Your task to perform on an android device: Open settings on Google Maps Image 0: 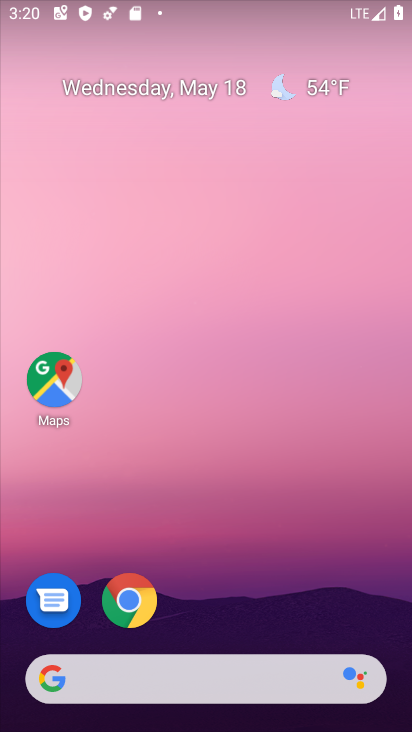
Step 0: press home button
Your task to perform on an android device: Open settings on Google Maps Image 1: 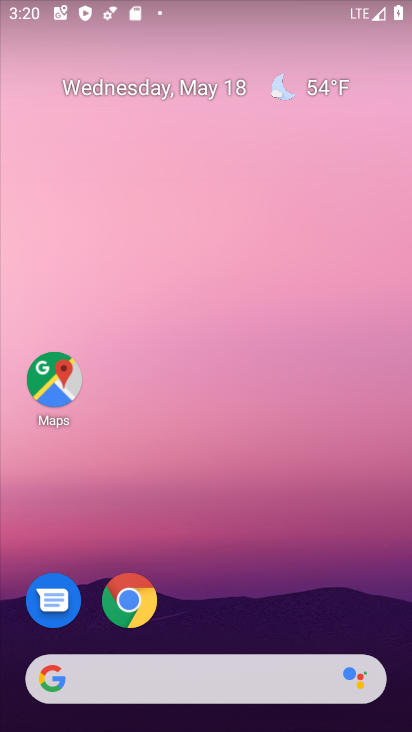
Step 1: click (54, 390)
Your task to perform on an android device: Open settings on Google Maps Image 2: 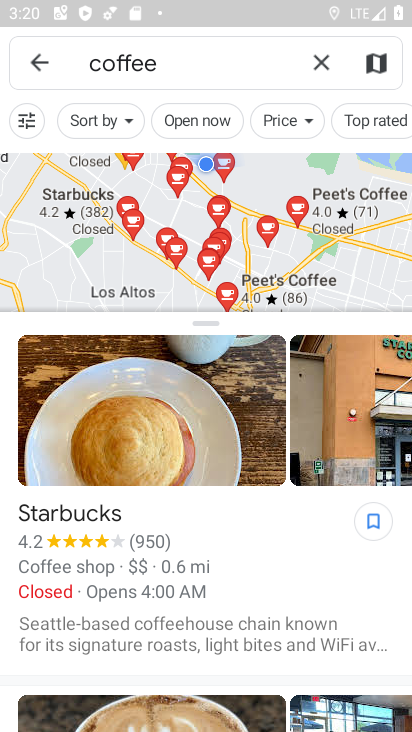
Step 2: click (42, 58)
Your task to perform on an android device: Open settings on Google Maps Image 3: 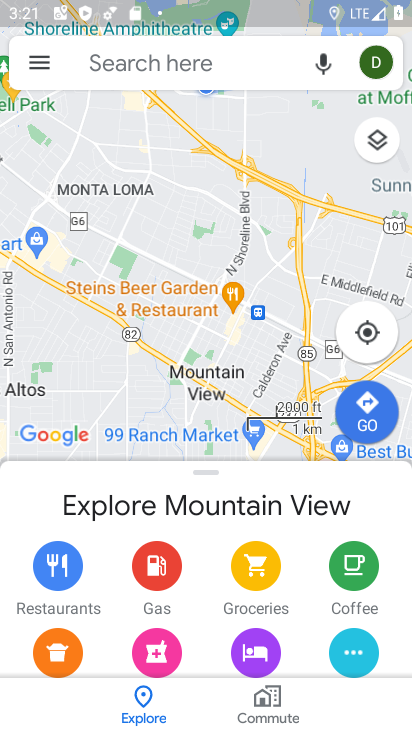
Step 3: click (42, 58)
Your task to perform on an android device: Open settings on Google Maps Image 4: 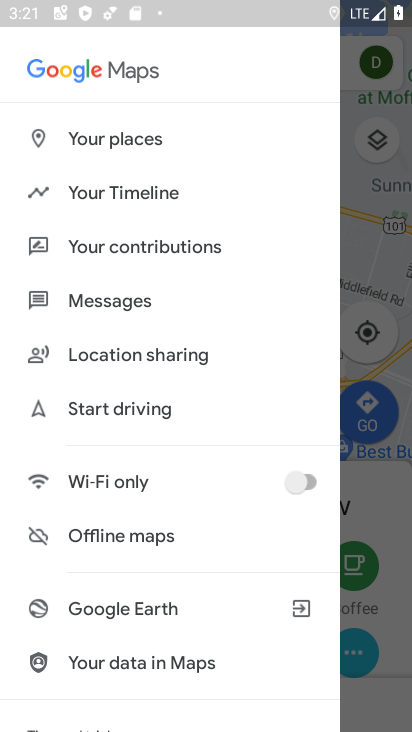
Step 4: drag from (173, 600) to (274, 244)
Your task to perform on an android device: Open settings on Google Maps Image 5: 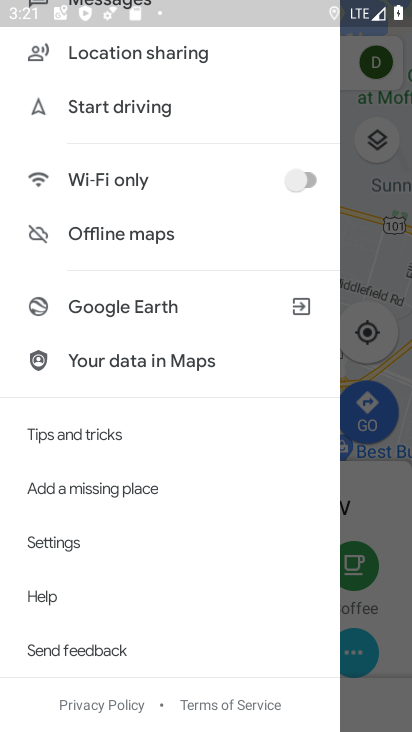
Step 5: drag from (156, 671) to (244, 358)
Your task to perform on an android device: Open settings on Google Maps Image 6: 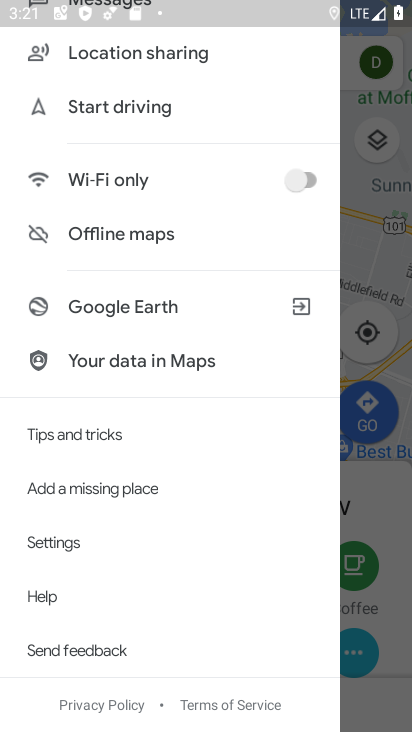
Step 6: click (74, 541)
Your task to perform on an android device: Open settings on Google Maps Image 7: 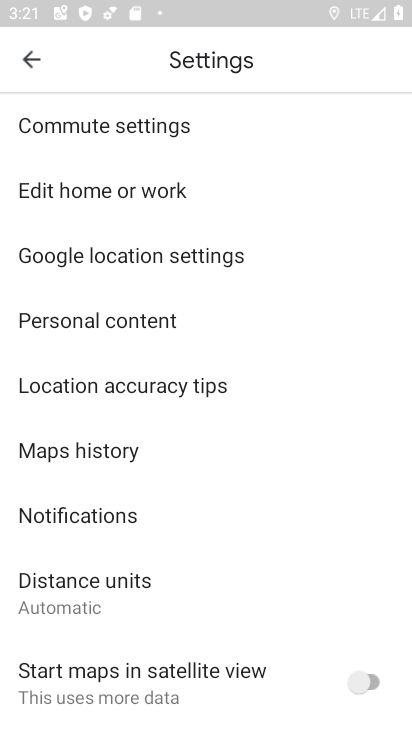
Step 7: task complete